Your task to perform on an android device: all mails in gmail Image 0: 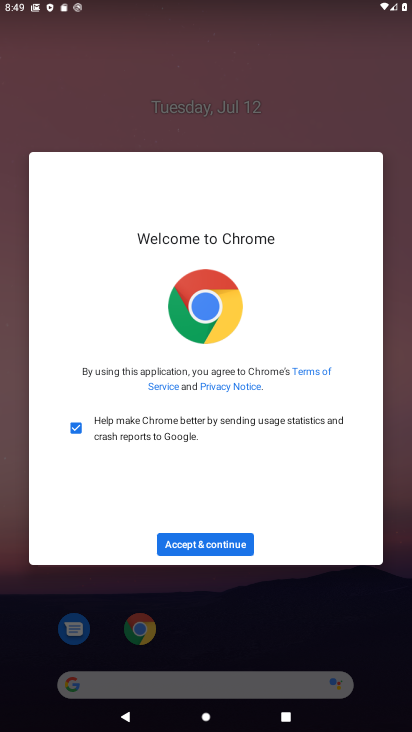
Step 0: press back button
Your task to perform on an android device: all mails in gmail Image 1: 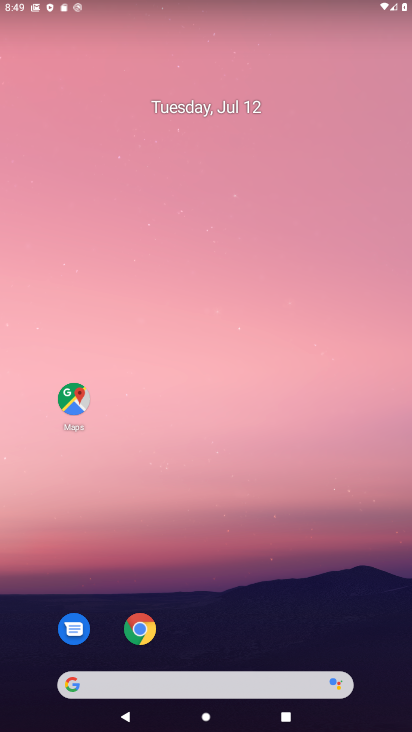
Step 1: drag from (272, 731) to (186, 188)
Your task to perform on an android device: all mails in gmail Image 2: 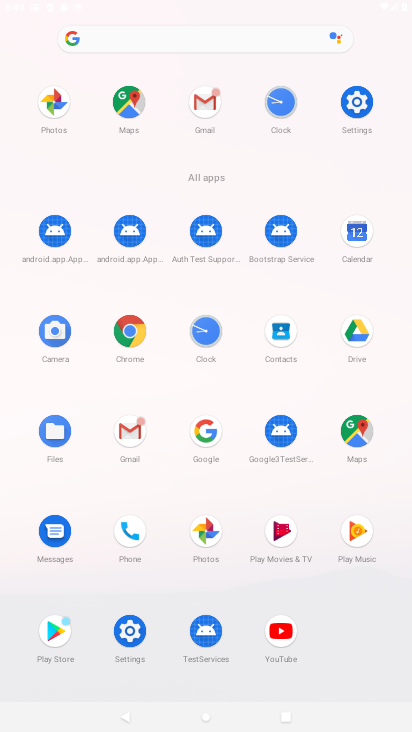
Step 2: click (119, 427)
Your task to perform on an android device: all mails in gmail Image 3: 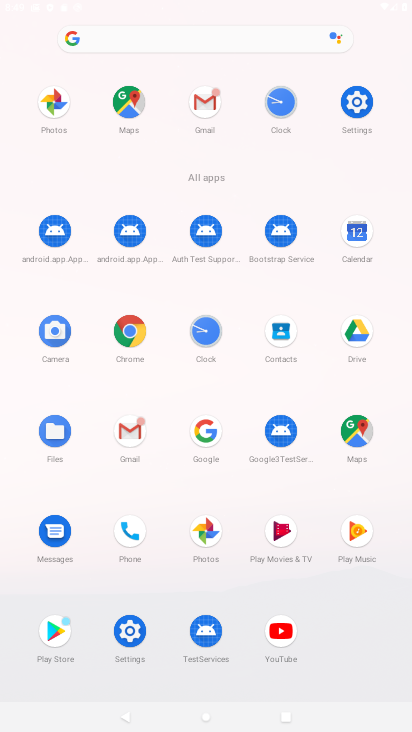
Step 3: click (123, 428)
Your task to perform on an android device: all mails in gmail Image 4: 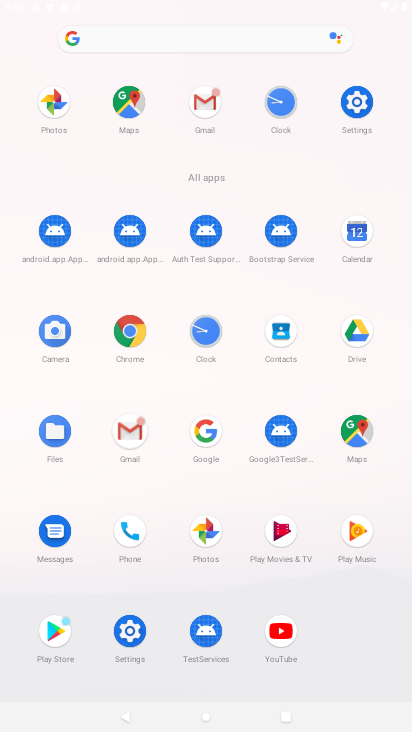
Step 4: click (124, 428)
Your task to perform on an android device: all mails in gmail Image 5: 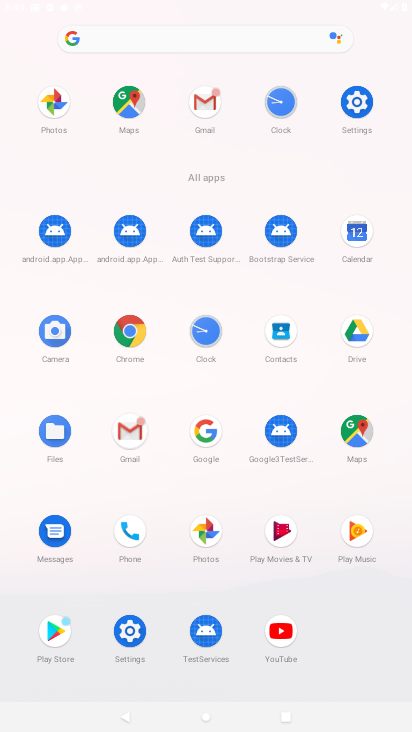
Step 5: click (125, 427)
Your task to perform on an android device: all mails in gmail Image 6: 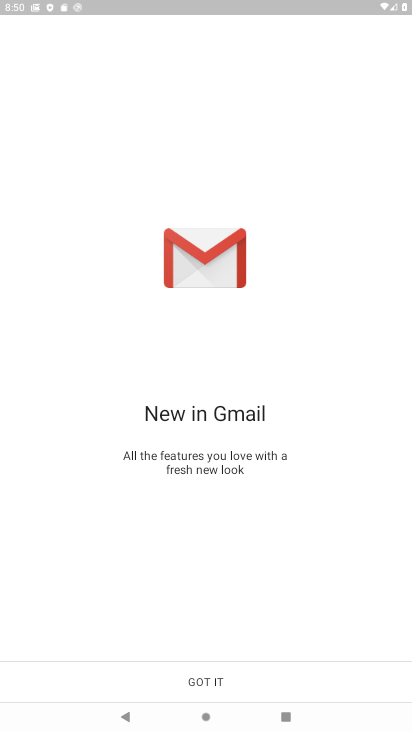
Step 6: click (230, 673)
Your task to perform on an android device: all mails in gmail Image 7: 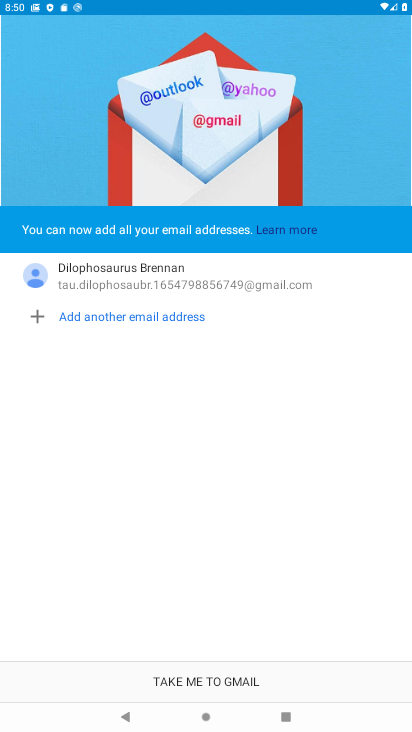
Step 7: click (197, 686)
Your task to perform on an android device: all mails in gmail Image 8: 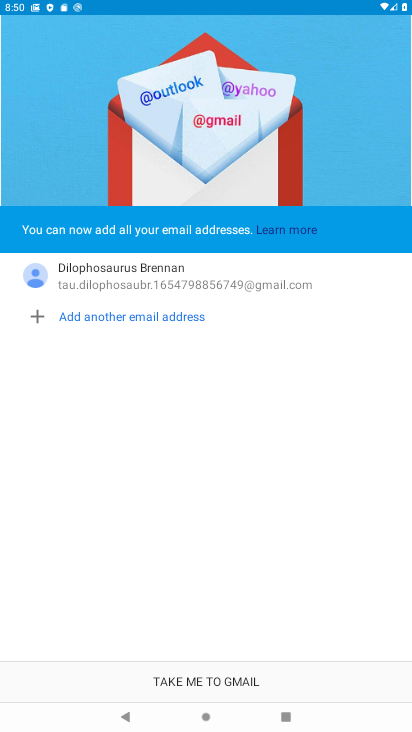
Step 8: click (198, 685)
Your task to perform on an android device: all mails in gmail Image 9: 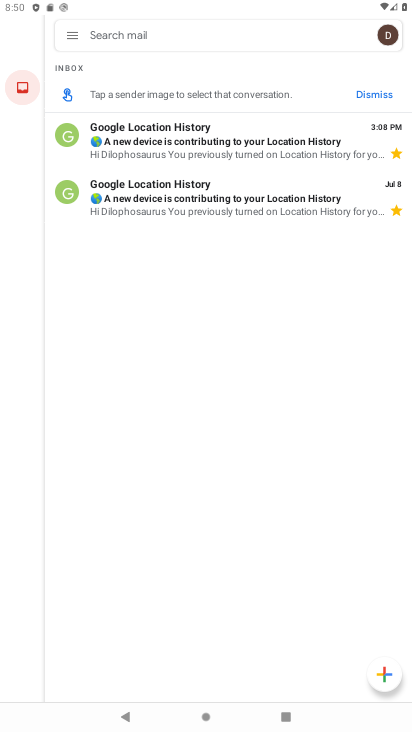
Step 9: task complete